Your task to perform on an android device: turn off data saver in the chrome app Image 0: 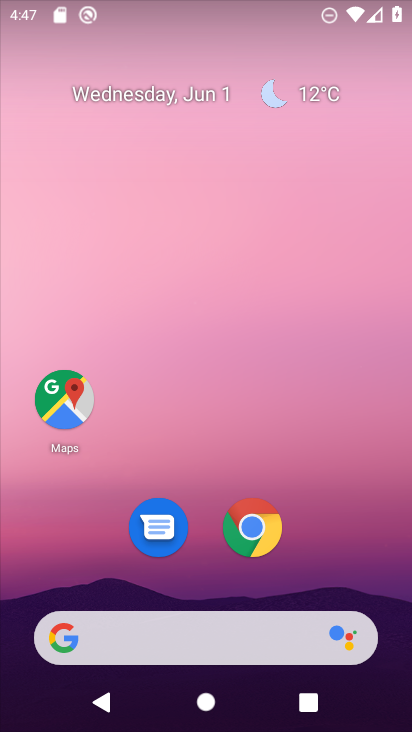
Step 0: click (253, 524)
Your task to perform on an android device: turn off data saver in the chrome app Image 1: 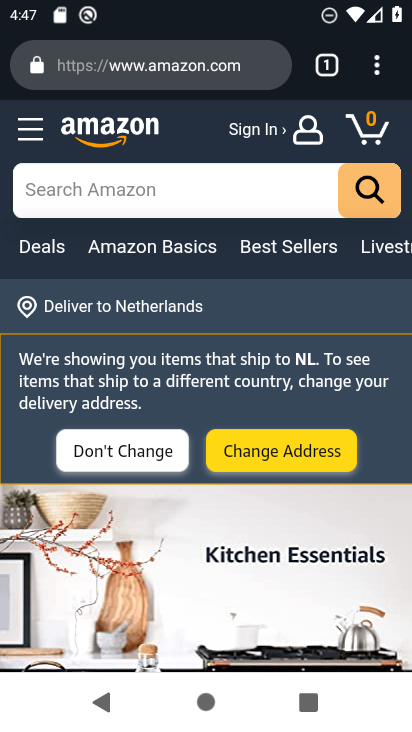
Step 1: click (380, 79)
Your task to perform on an android device: turn off data saver in the chrome app Image 2: 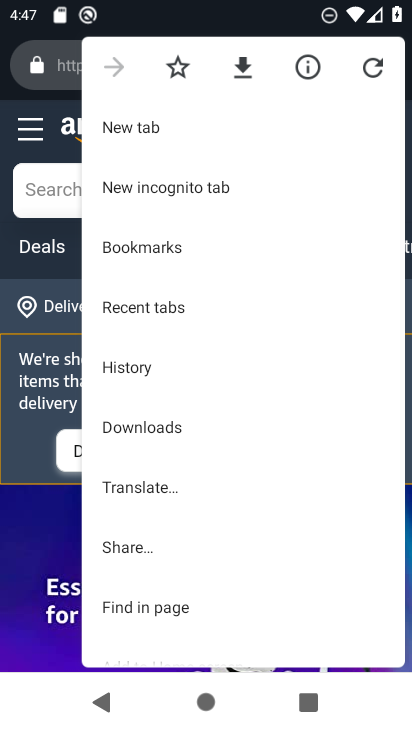
Step 2: drag from (157, 571) to (266, 118)
Your task to perform on an android device: turn off data saver in the chrome app Image 3: 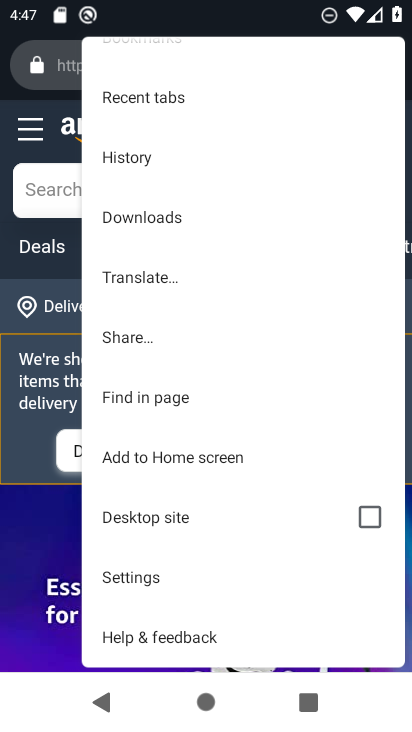
Step 3: click (173, 575)
Your task to perform on an android device: turn off data saver in the chrome app Image 4: 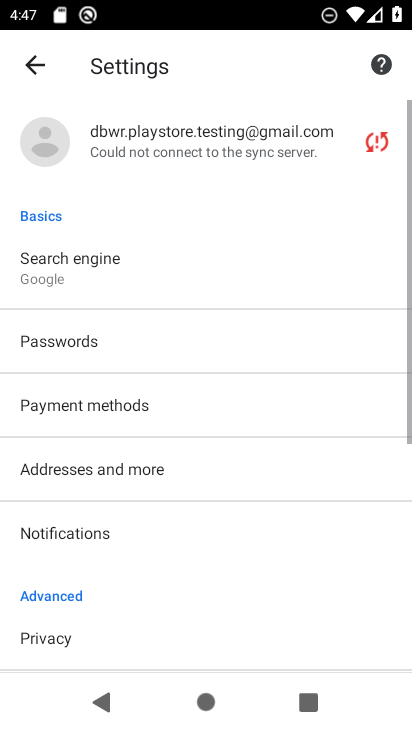
Step 4: drag from (173, 575) to (164, 47)
Your task to perform on an android device: turn off data saver in the chrome app Image 5: 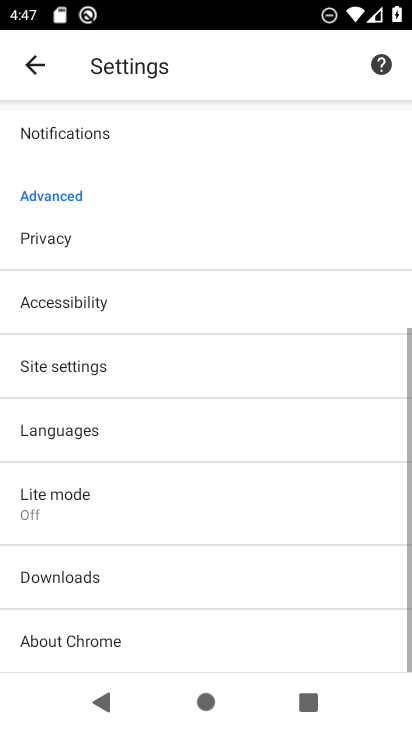
Step 5: click (70, 487)
Your task to perform on an android device: turn off data saver in the chrome app Image 6: 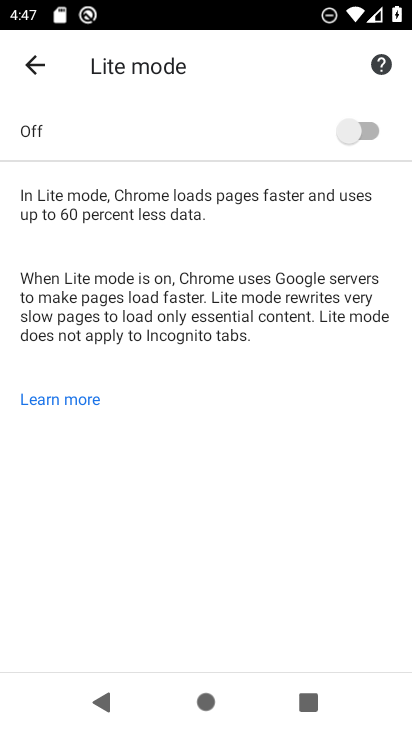
Step 6: task complete